Your task to perform on an android device: Go to notification settings Image 0: 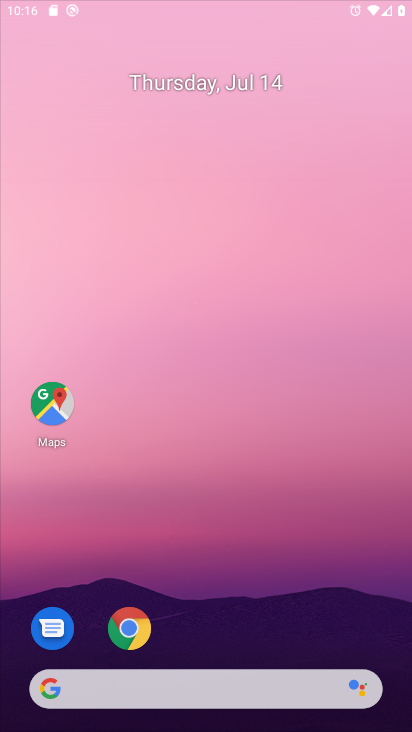
Step 0: click (270, 154)
Your task to perform on an android device: Go to notification settings Image 1: 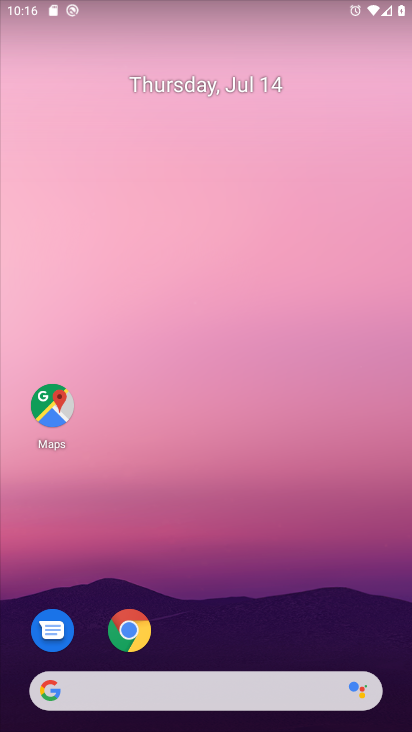
Step 1: drag from (189, 627) to (259, 66)
Your task to perform on an android device: Go to notification settings Image 2: 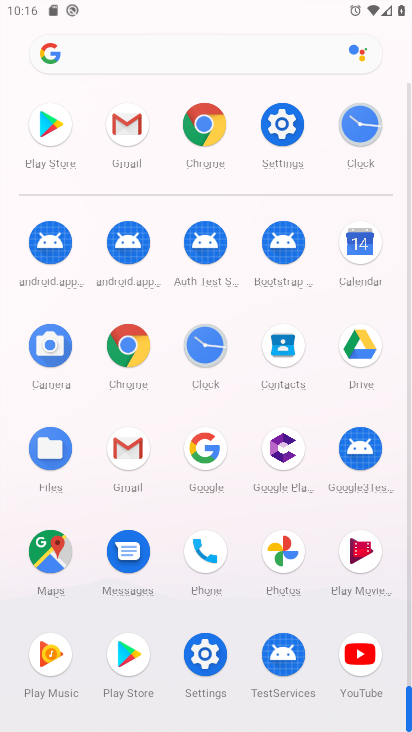
Step 2: click (204, 654)
Your task to perform on an android device: Go to notification settings Image 3: 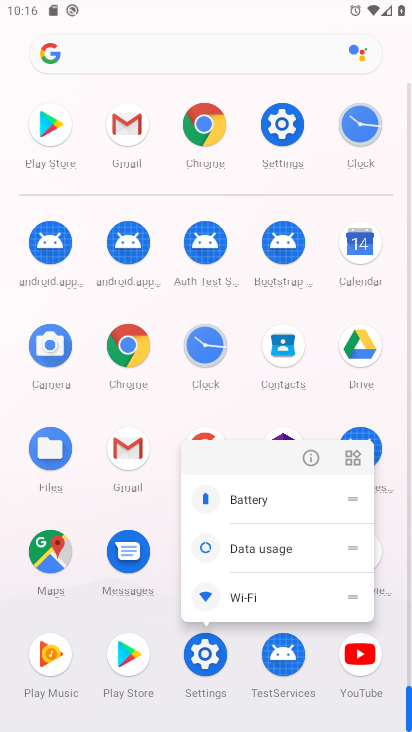
Step 3: click (308, 462)
Your task to perform on an android device: Go to notification settings Image 4: 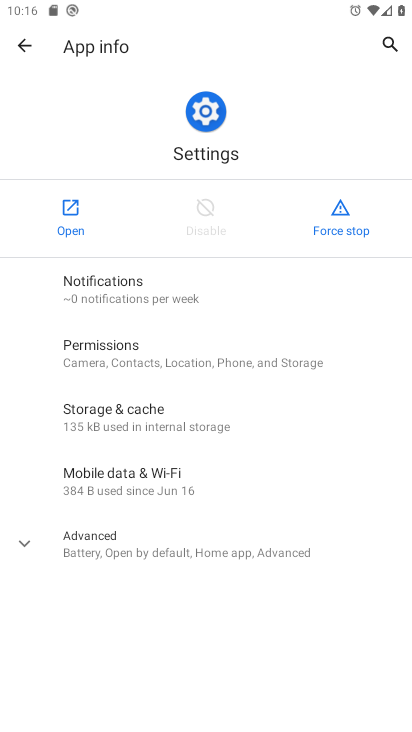
Step 4: click (81, 230)
Your task to perform on an android device: Go to notification settings Image 5: 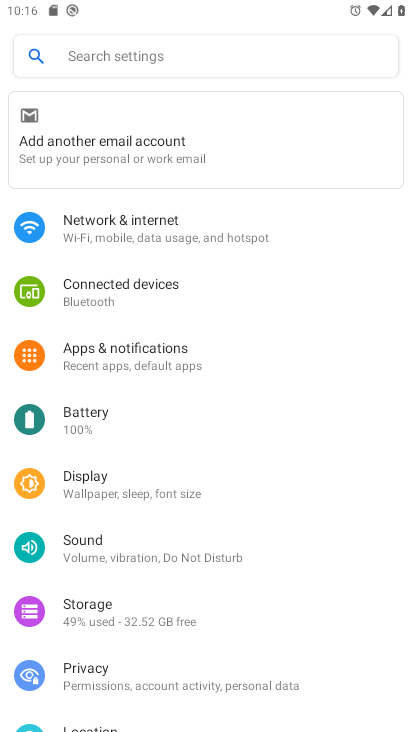
Step 5: click (148, 356)
Your task to perform on an android device: Go to notification settings Image 6: 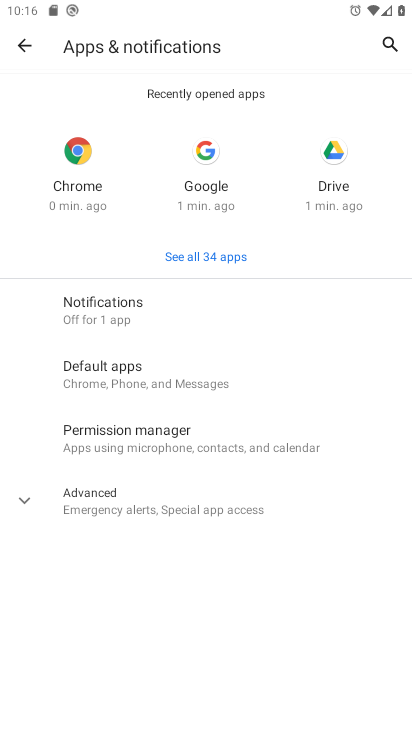
Step 6: click (144, 311)
Your task to perform on an android device: Go to notification settings Image 7: 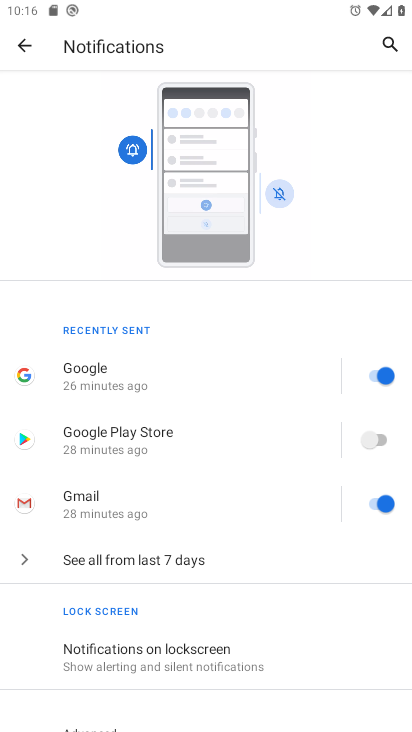
Step 7: drag from (193, 641) to (230, 353)
Your task to perform on an android device: Go to notification settings Image 8: 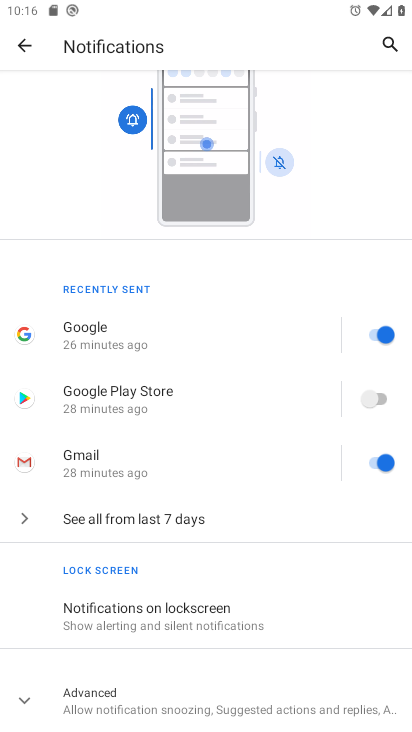
Step 8: click (167, 696)
Your task to perform on an android device: Go to notification settings Image 9: 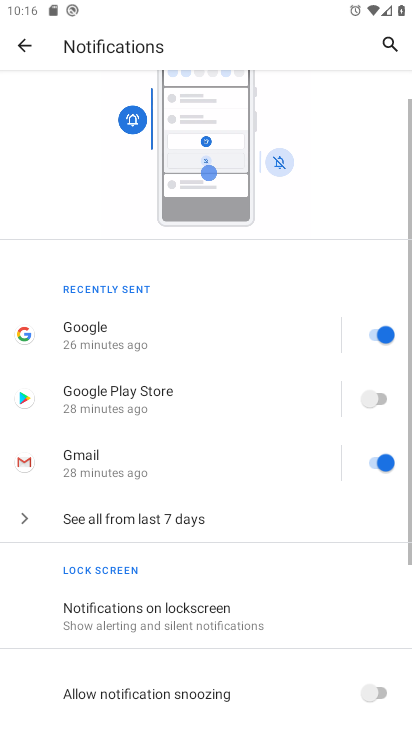
Step 9: task complete